Your task to perform on an android device: Search for razer deathadder on bestbuy, select the first entry, and add it to the cart. Image 0: 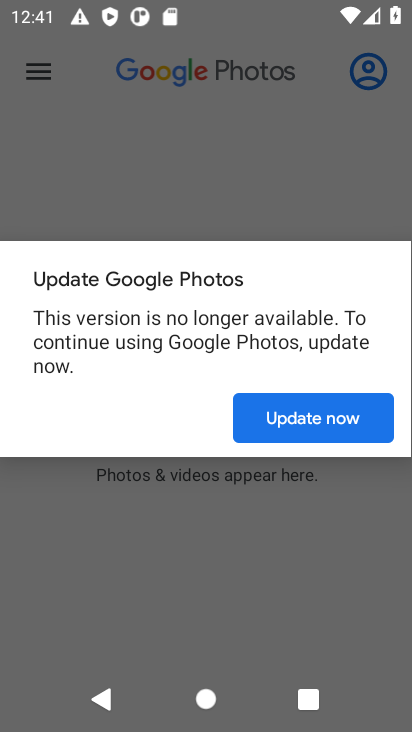
Step 0: press home button
Your task to perform on an android device: Search for razer deathadder on bestbuy, select the first entry, and add it to the cart. Image 1: 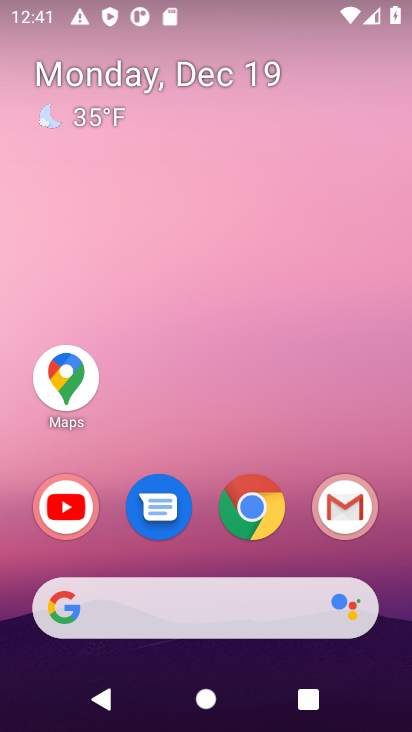
Step 1: click (257, 515)
Your task to perform on an android device: Search for razer deathadder on bestbuy, select the first entry, and add it to the cart. Image 2: 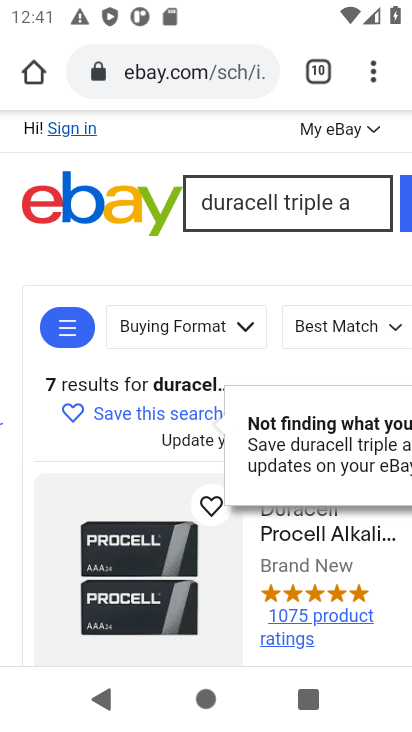
Step 2: click (188, 79)
Your task to perform on an android device: Search for razer deathadder on bestbuy, select the first entry, and add it to the cart. Image 3: 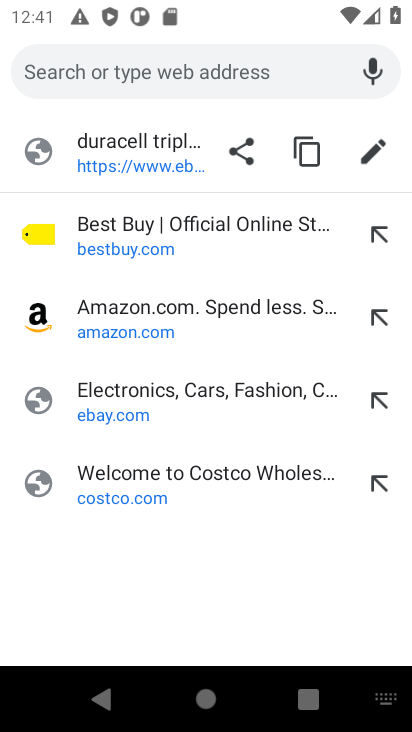
Step 3: click (124, 243)
Your task to perform on an android device: Search for razer deathadder on bestbuy, select the first entry, and add it to the cart. Image 4: 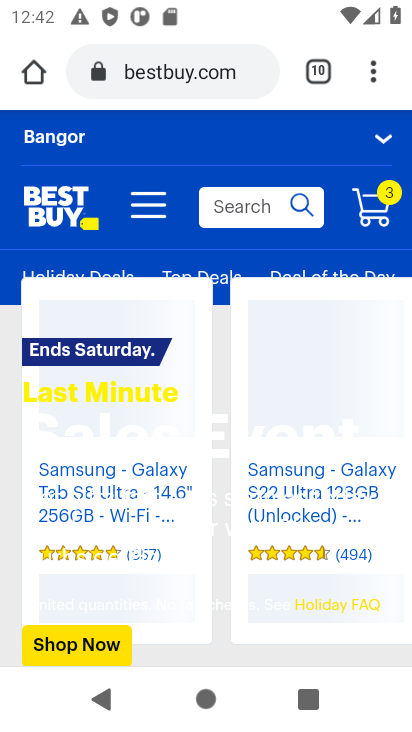
Step 4: click (232, 218)
Your task to perform on an android device: Search for razer deathadder on bestbuy, select the first entry, and add it to the cart. Image 5: 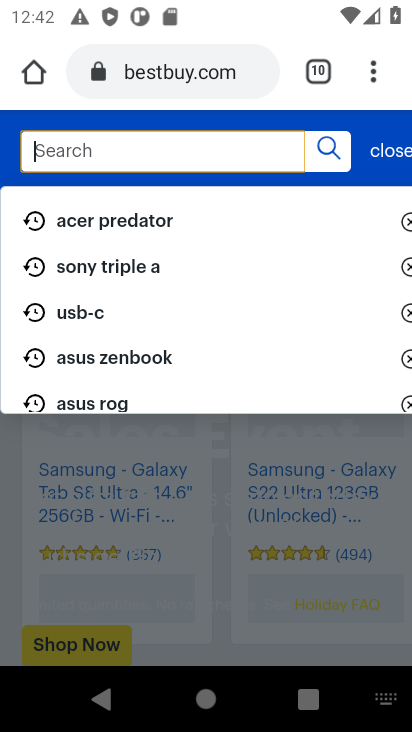
Step 5: type "razer deathadder"
Your task to perform on an android device: Search for razer deathadder on bestbuy, select the first entry, and add it to the cart. Image 6: 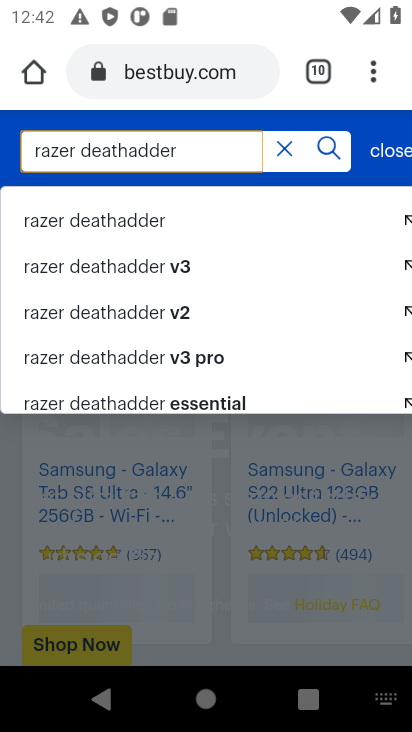
Step 6: click (127, 228)
Your task to perform on an android device: Search for razer deathadder on bestbuy, select the first entry, and add it to the cart. Image 7: 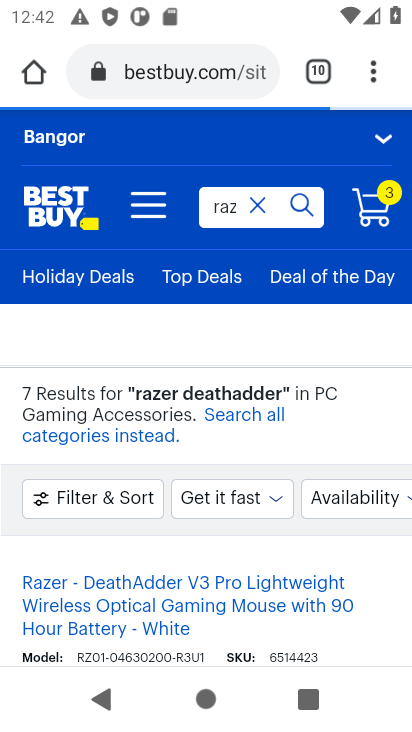
Step 7: drag from (168, 538) to (158, 239)
Your task to perform on an android device: Search for razer deathadder on bestbuy, select the first entry, and add it to the cart. Image 8: 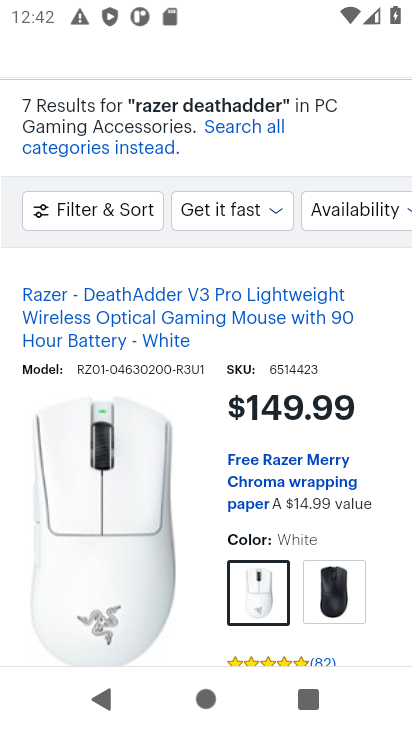
Step 8: drag from (159, 380) to (155, 182)
Your task to perform on an android device: Search for razer deathadder on bestbuy, select the first entry, and add it to the cart. Image 9: 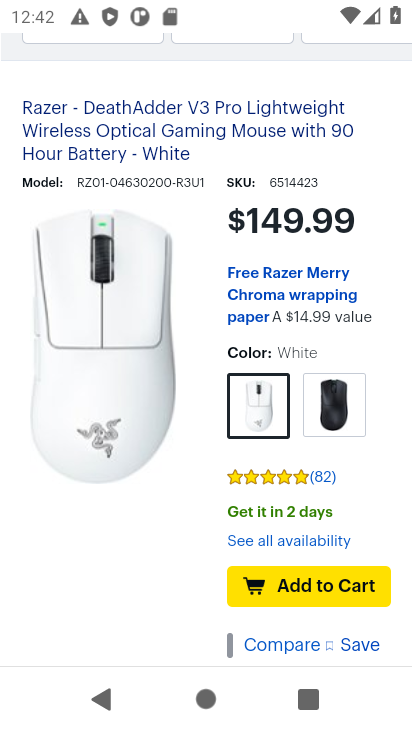
Step 9: click (303, 588)
Your task to perform on an android device: Search for razer deathadder on bestbuy, select the first entry, and add it to the cart. Image 10: 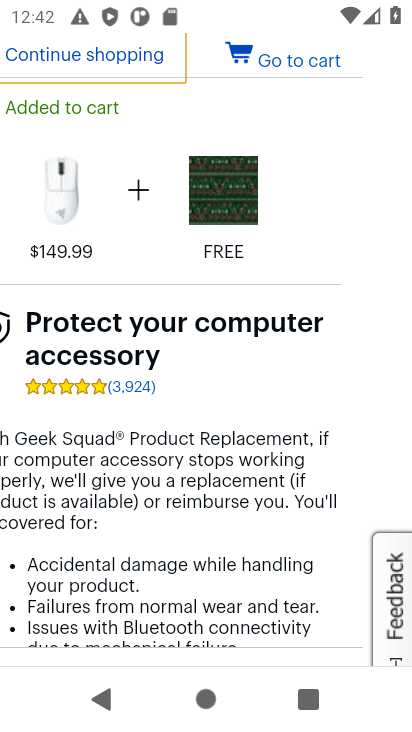
Step 10: task complete